Your task to perform on an android device: open a new tab in the chrome app Image 0: 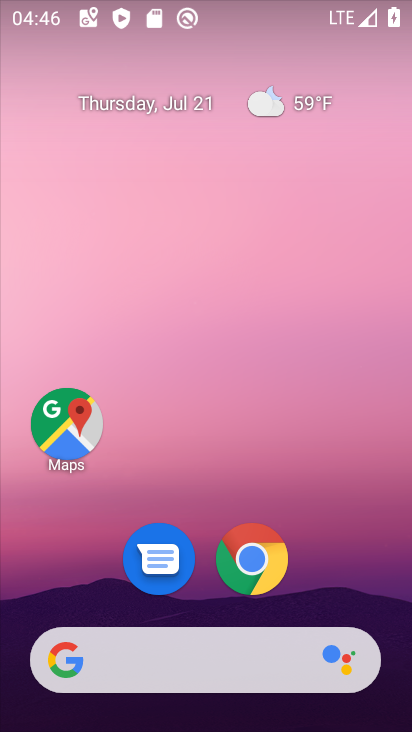
Step 0: click (257, 559)
Your task to perform on an android device: open a new tab in the chrome app Image 1: 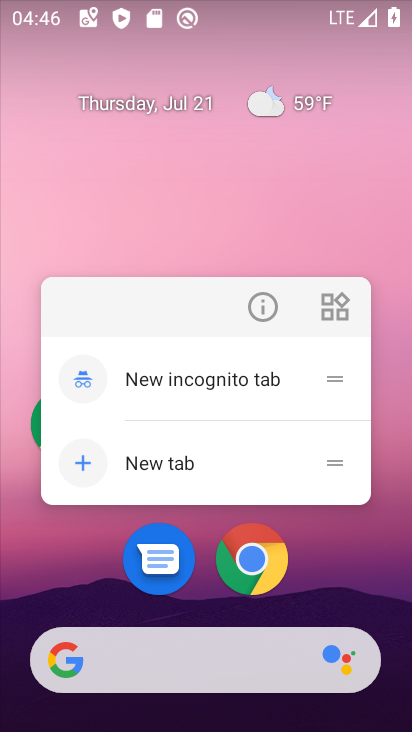
Step 1: click (239, 553)
Your task to perform on an android device: open a new tab in the chrome app Image 2: 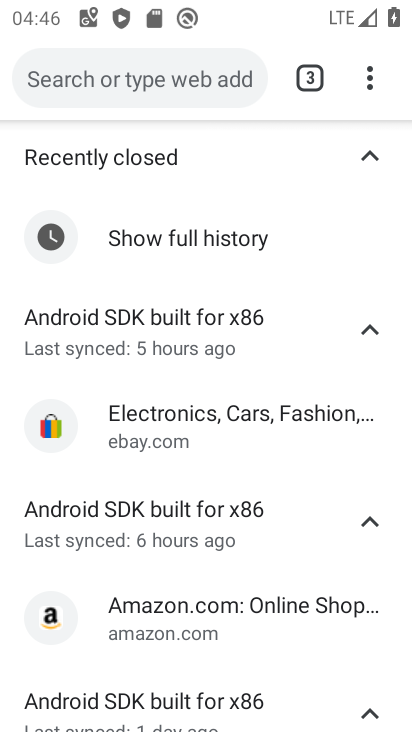
Step 2: task complete